Your task to perform on an android device: check storage Image 0: 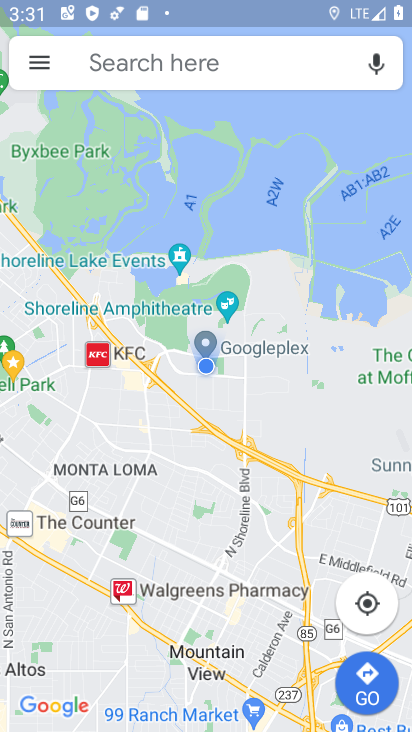
Step 0: press home button
Your task to perform on an android device: check storage Image 1: 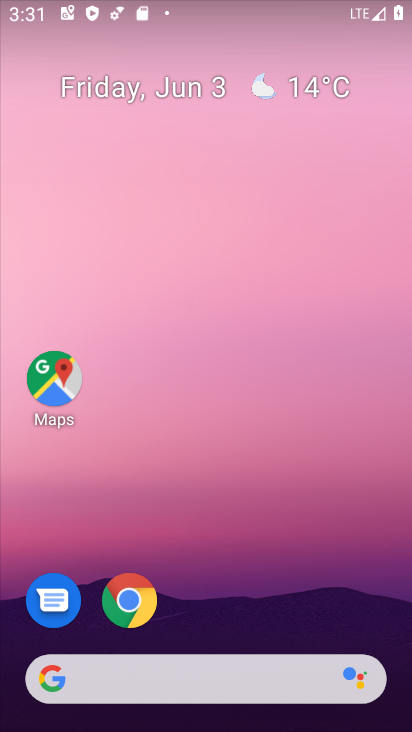
Step 1: drag from (321, 585) to (284, 88)
Your task to perform on an android device: check storage Image 2: 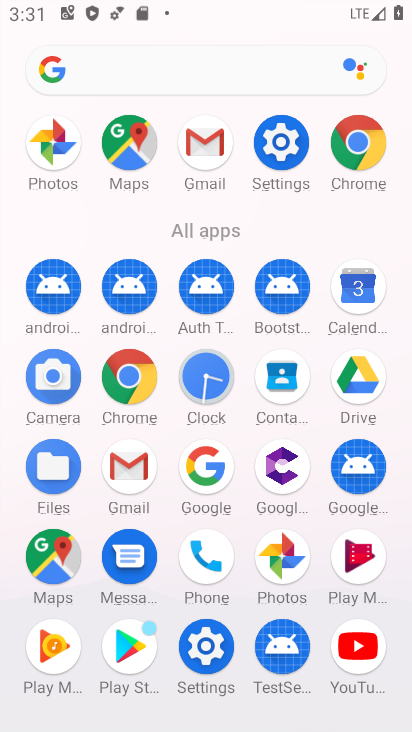
Step 2: click (286, 145)
Your task to perform on an android device: check storage Image 3: 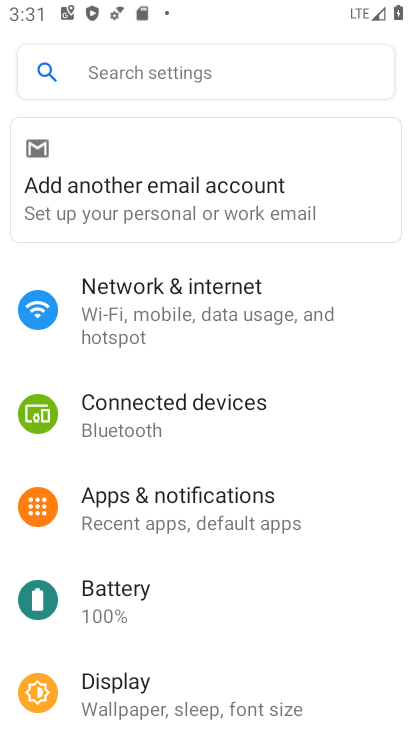
Step 3: drag from (244, 645) to (266, 395)
Your task to perform on an android device: check storage Image 4: 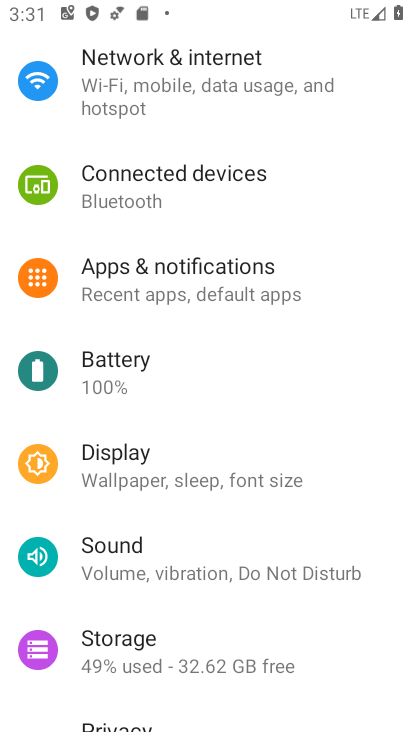
Step 4: click (139, 653)
Your task to perform on an android device: check storage Image 5: 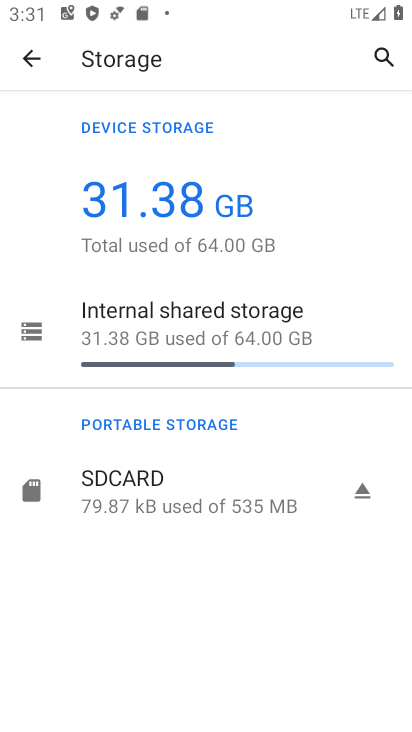
Step 5: task complete